Your task to perform on an android device: make emails show in primary in the gmail app Image 0: 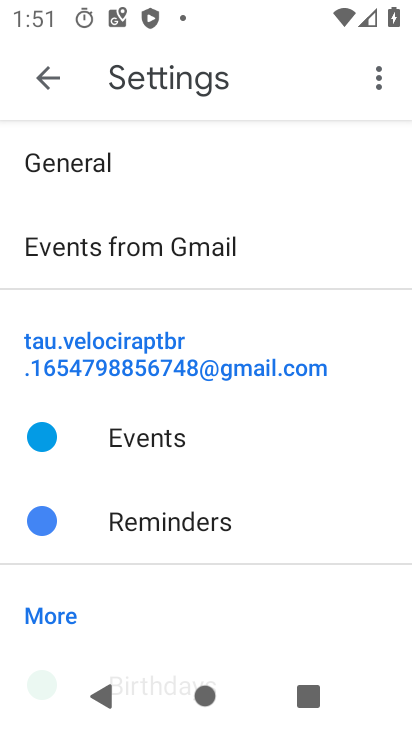
Step 0: press back button
Your task to perform on an android device: make emails show in primary in the gmail app Image 1: 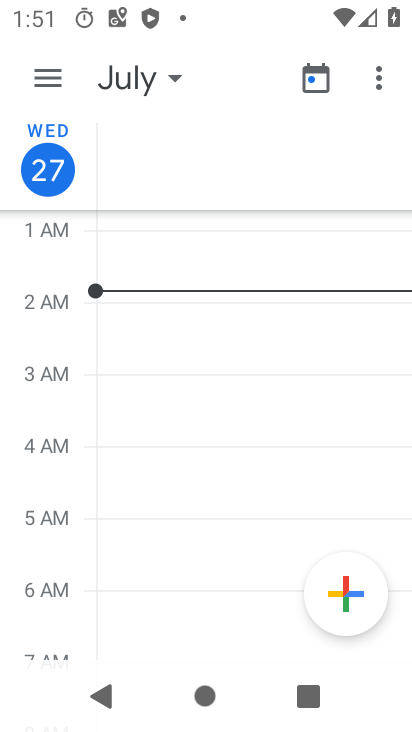
Step 1: press back button
Your task to perform on an android device: make emails show in primary in the gmail app Image 2: 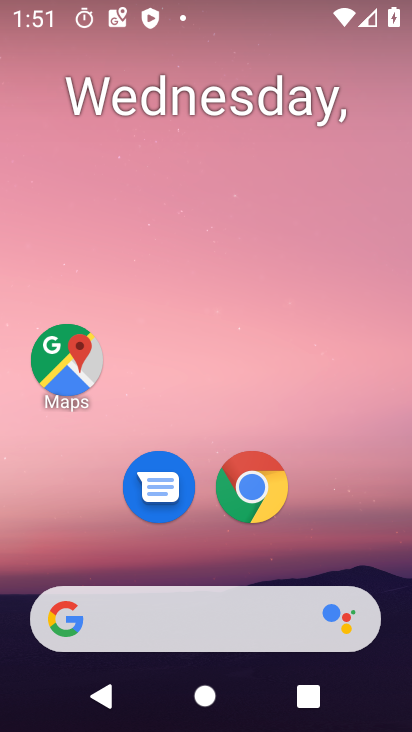
Step 2: drag from (203, 511) to (264, 39)
Your task to perform on an android device: make emails show in primary in the gmail app Image 3: 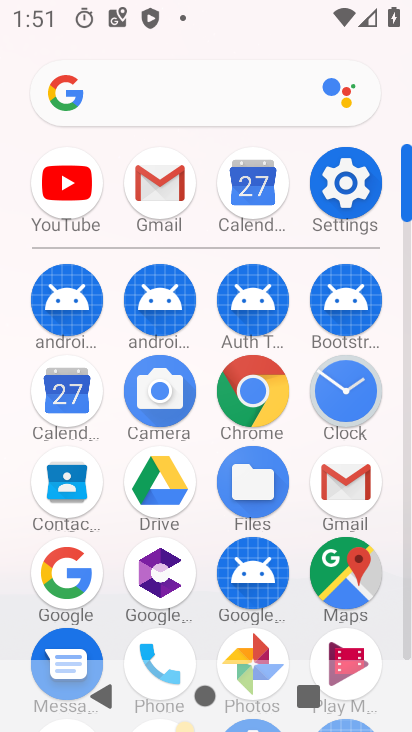
Step 3: click (164, 183)
Your task to perform on an android device: make emails show in primary in the gmail app Image 4: 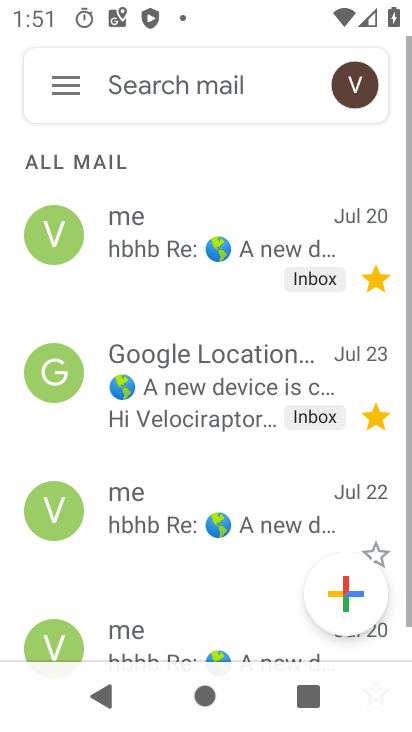
Step 4: click (59, 87)
Your task to perform on an android device: make emails show in primary in the gmail app Image 5: 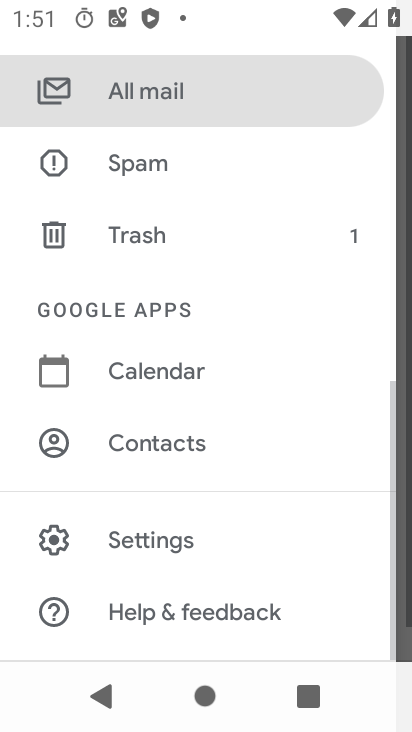
Step 5: drag from (194, 211) to (196, 163)
Your task to perform on an android device: make emails show in primary in the gmail app Image 6: 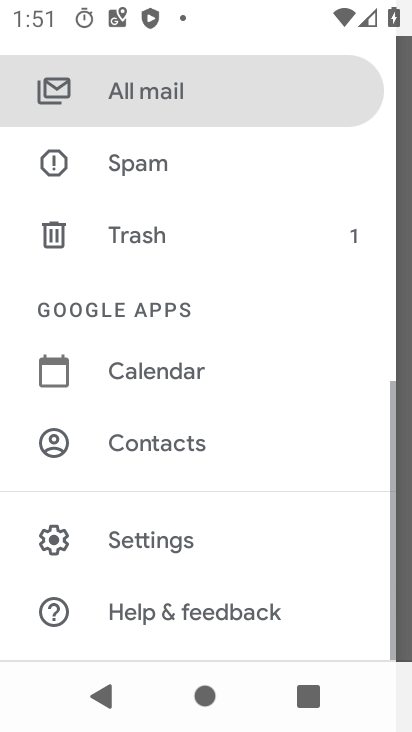
Step 6: click (146, 547)
Your task to perform on an android device: make emails show in primary in the gmail app Image 7: 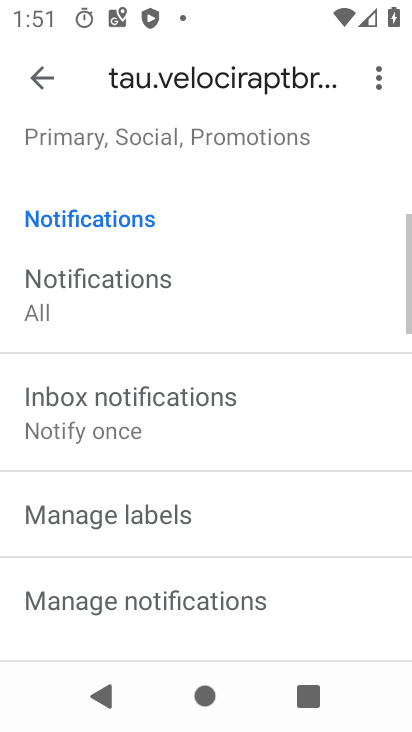
Step 7: drag from (185, 219) to (214, 565)
Your task to perform on an android device: make emails show in primary in the gmail app Image 8: 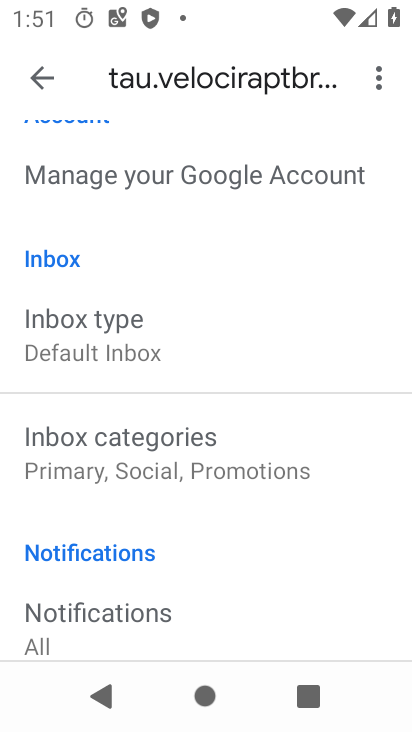
Step 8: click (165, 481)
Your task to perform on an android device: make emails show in primary in the gmail app Image 9: 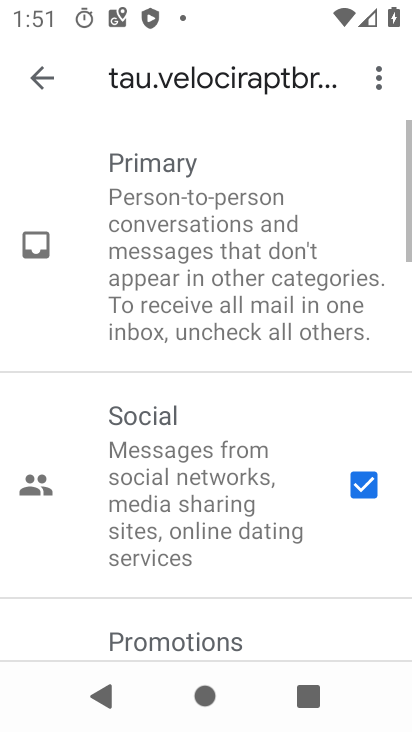
Step 9: drag from (213, 559) to (302, 69)
Your task to perform on an android device: make emails show in primary in the gmail app Image 10: 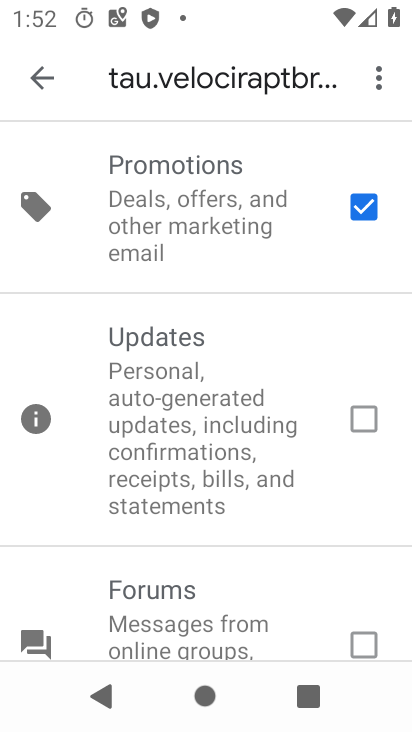
Step 10: click (363, 397)
Your task to perform on an android device: make emails show in primary in the gmail app Image 11: 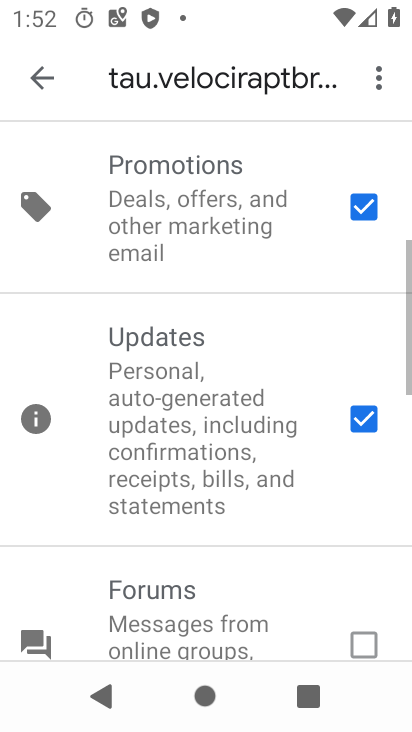
Step 11: click (371, 647)
Your task to perform on an android device: make emails show in primary in the gmail app Image 12: 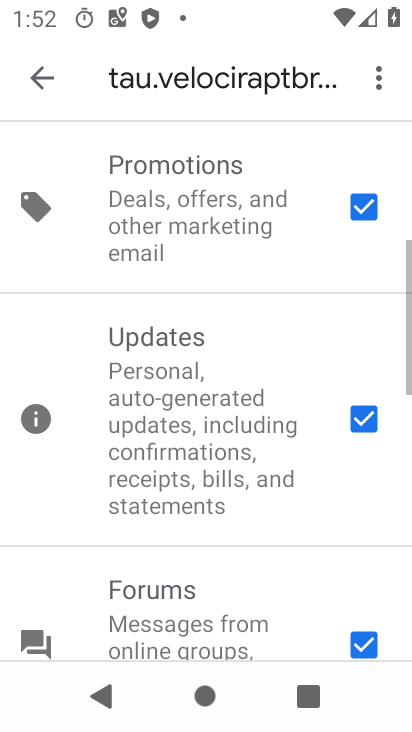
Step 12: drag from (164, 486) to (271, 118)
Your task to perform on an android device: make emails show in primary in the gmail app Image 13: 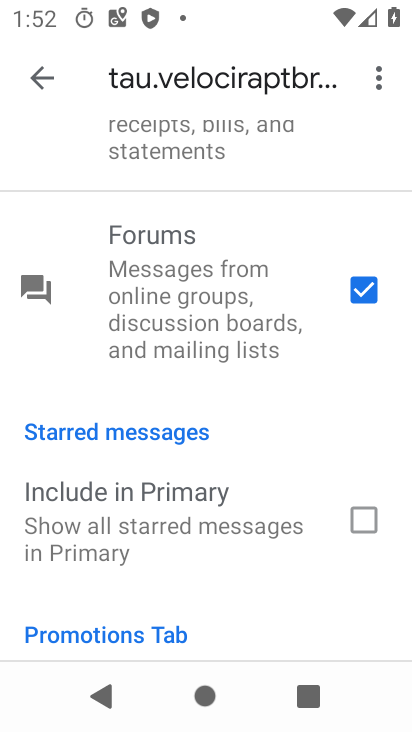
Step 13: click (373, 513)
Your task to perform on an android device: make emails show in primary in the gmail app Image 14: 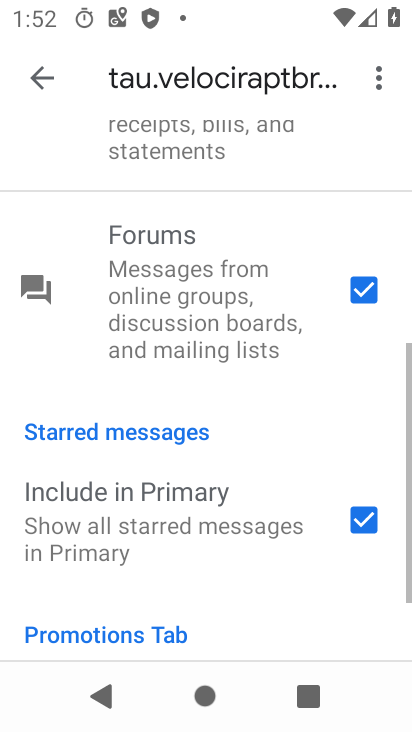
Step 14: task complete